Your task to perform on an android device: open chrome privacy settings Image 0: 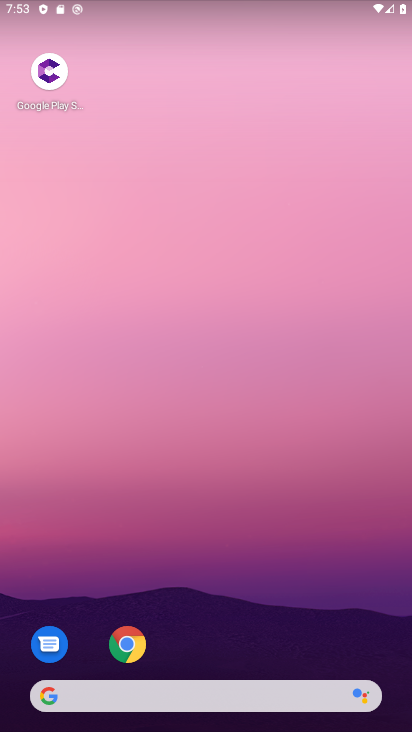
Step 0: click (133, 638)
Your task to perform on an android device: open chrome privacy settings Image 1: 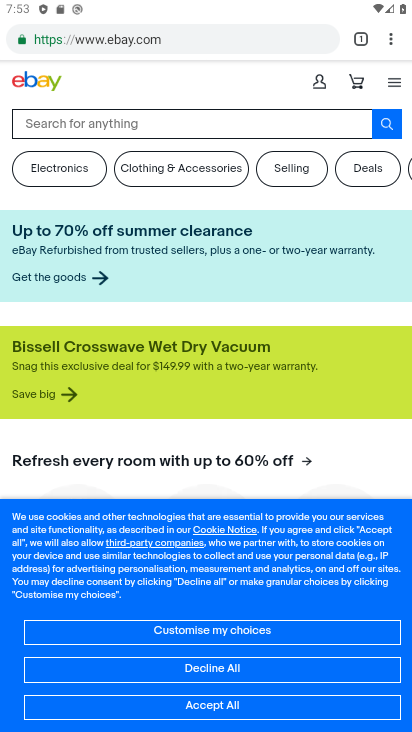
Step 1: click (393, 42)
Your task to perform on an android device: open chrome privacy settings Image 2: 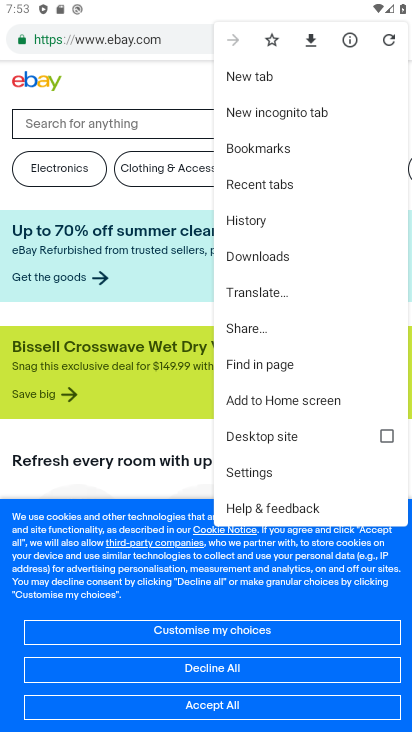
Step 2: click (240, 470)
Your task to perform on an android device: open chrome privacy settings Image 3: 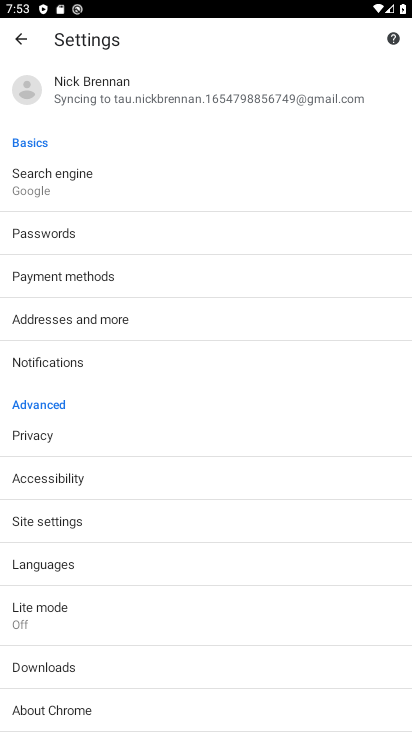
Step 3: click (33, 430)
Your task to perform on an android device: open chrome privacy settings Image 4: 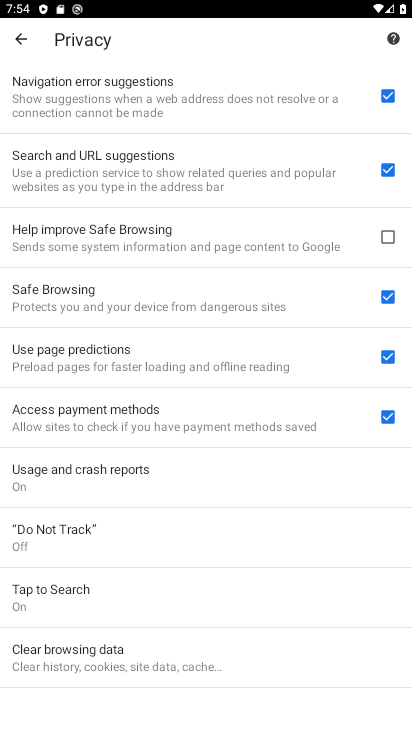
Step 4: task complete